Your task to perform on an android device: Search for pizza restaurants on Maps Image 0: 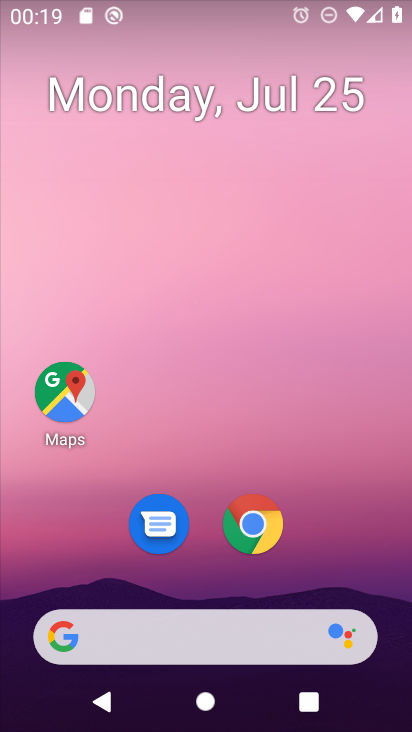
Step 0: click (59, 395)
Your task to perform on an android device: Search for pizza restaurants on Maps Image 1: 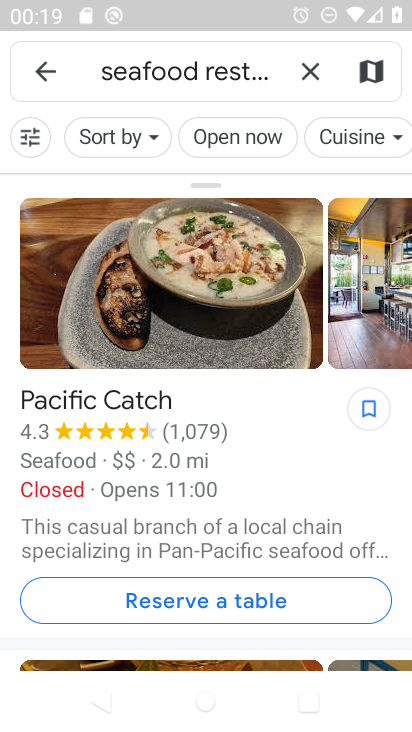
Step 1: click (308, 68)
Your task to perform on an android device: Search for pizza restaurants on Maps Image 2: 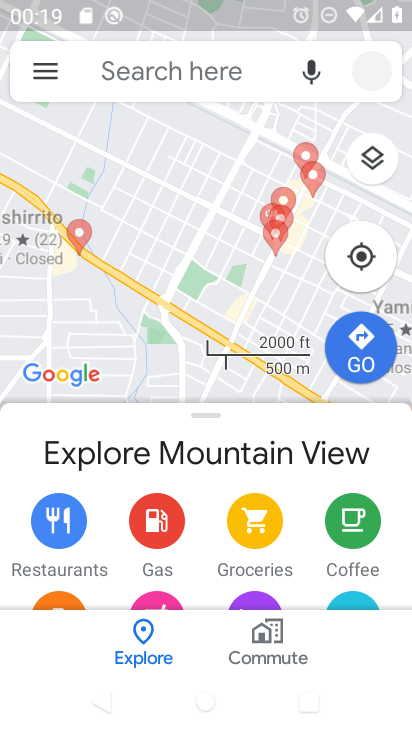
Step 2: click (190, 65)
Your task to perform on an android device: Search for pizza restaurants on Maps Image 3: 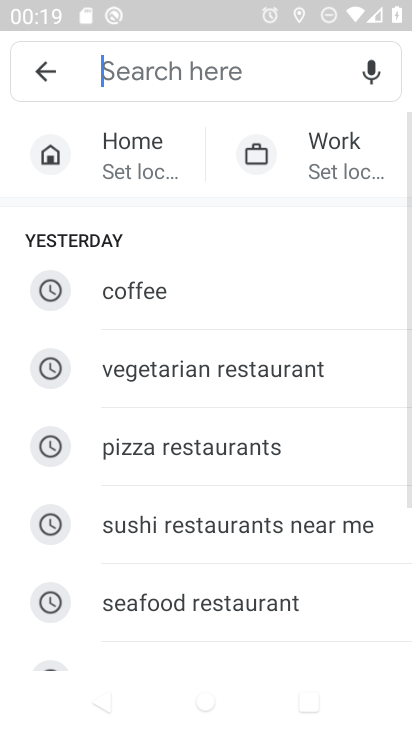
Step 3: click (170, 74)
Your task to perform on an android device: Search for pizza restaurants on Maps Image 4: 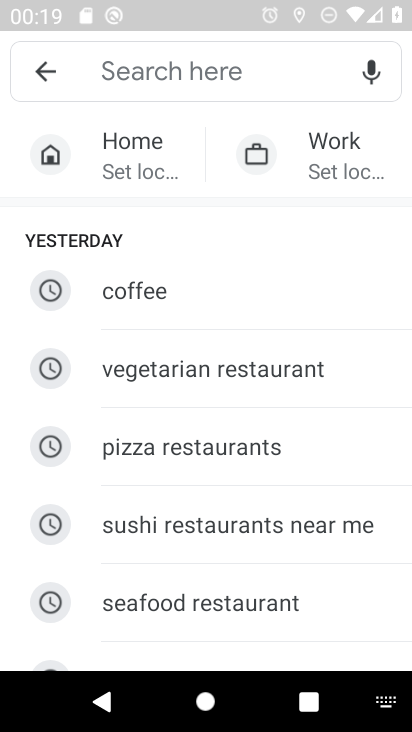
Step 4: click (180, 451)
Your task to perform on an android device: Search for pizza restaurants on Maps Image 5: 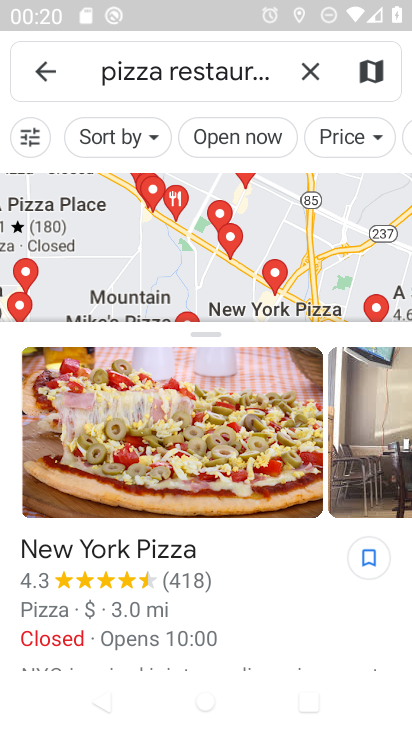
Step 5: task complete